Your task to perform on an android device: open wifi settings Image 0: 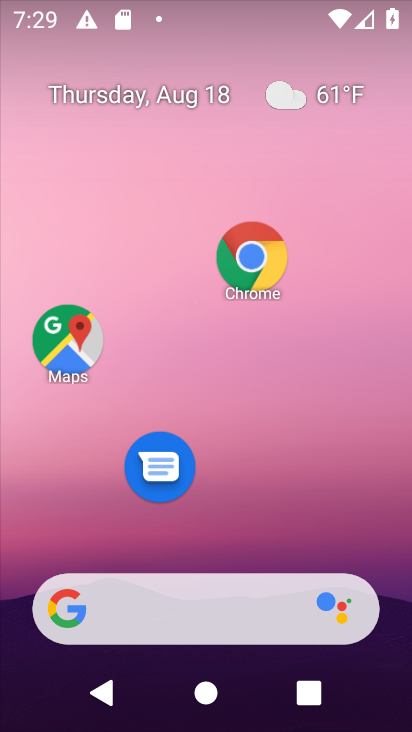
Step 0: drag from (320, 482) to (308, 125)
Your task to perform on an android device: open wifi settings Image 1: 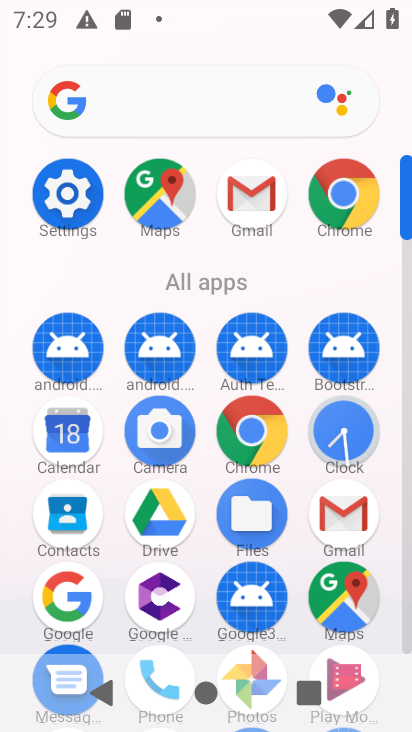
Step 1: click (56, 208)
Your task to perform on an android device: open wifi settings Image 2: 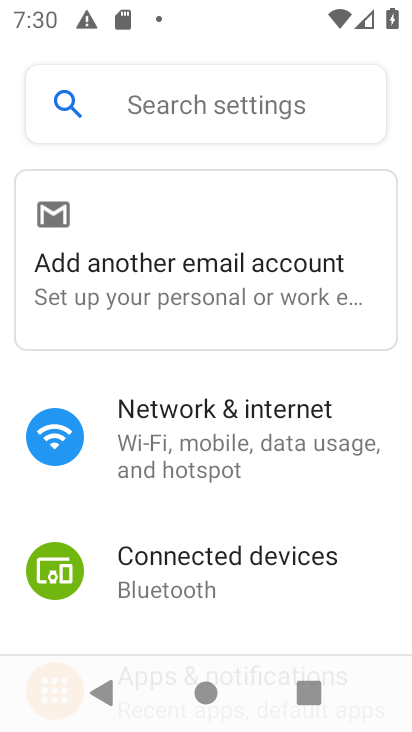
Step 2: click (210, 421)
Your task to perform on an android device: open wifi settings Image 3: 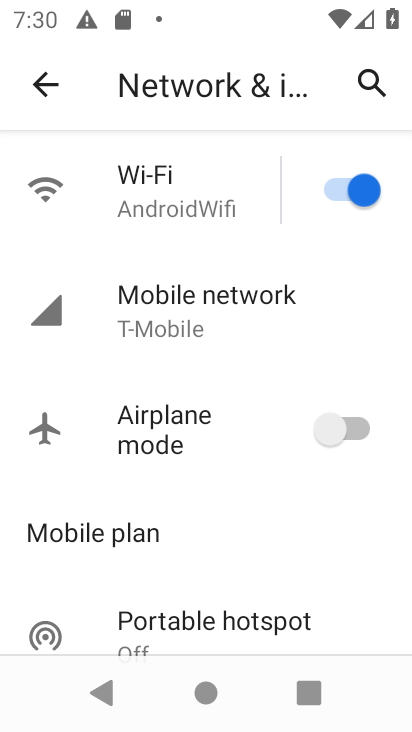
Step 3: task complete